Your task to perform on an android device: turn on the 24-hour format for clock Image 0: 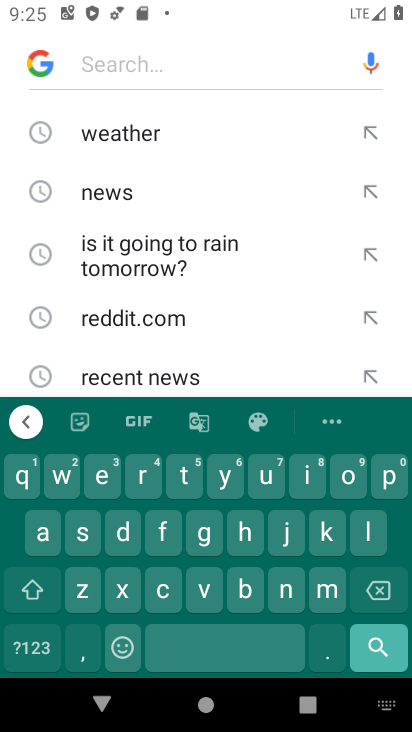
Step 0: press home button
Your task to perform on an android device: turn on the 24-hour format for clock Image 1: 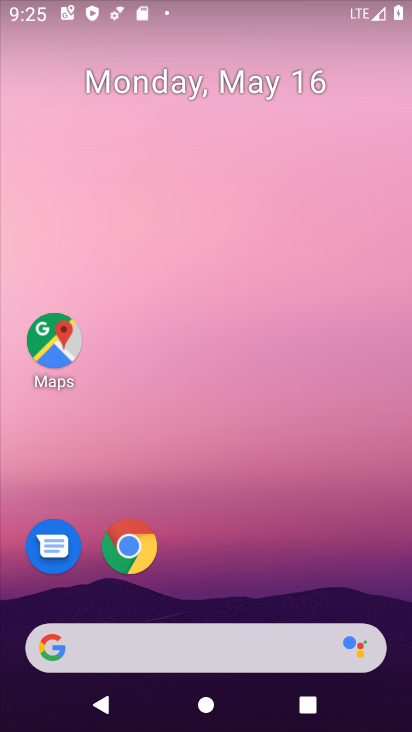
Step 1: drag from (288, 679) to (235, 136)
Your task to perform on an android device: turn on the 24-hour format for clock Image 2: 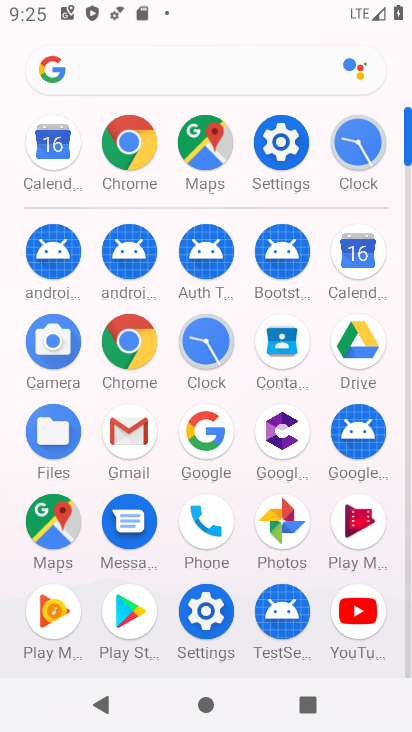
Step 2: click (198, 340)
Your task to perform on an android device: turn on the 24-hour format for clock Image 3: 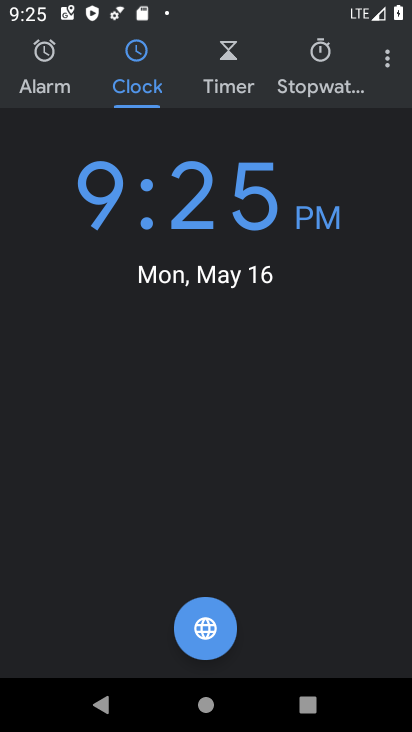
Step 3: click (375, 77)
Your task to perform on an android device: turn on the 24-hour format for clock Image 4: 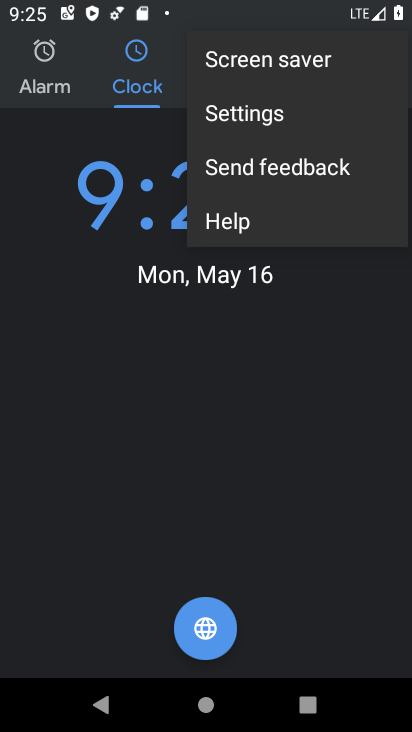
Step 4: click (284, 104)
Your task to perform on an android device: turn on the 24-hour format for clock Image 5: 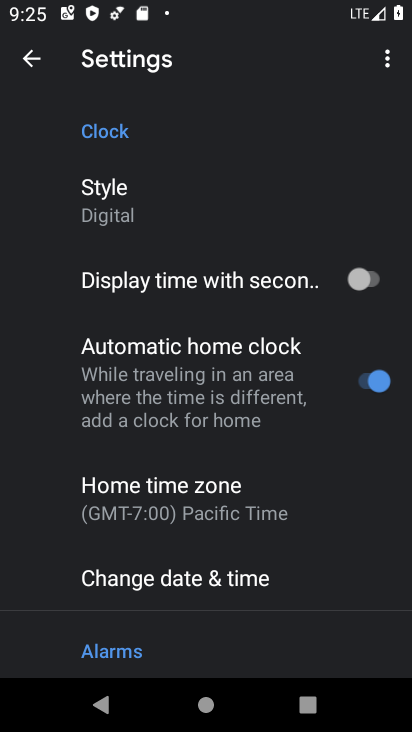
Step 5: click (138, 579)
Your task to perform on an android device: turn on the 24-hour format for clock Image 6: 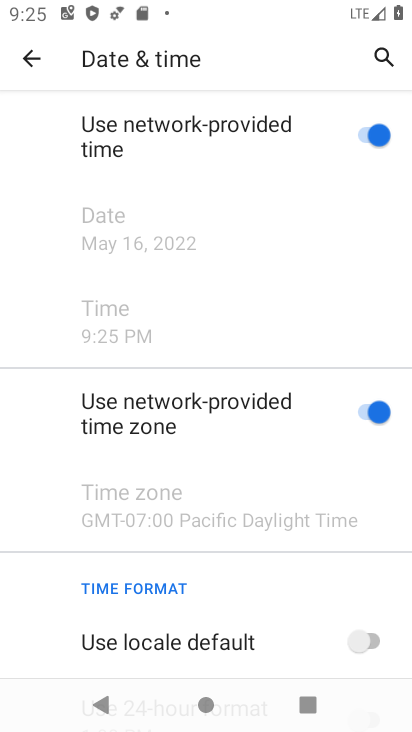
Step 6: drag from (225, 554) to (198, 210)
Your task to perform on an android device: turn on the 24-hour format for clock Image 7: 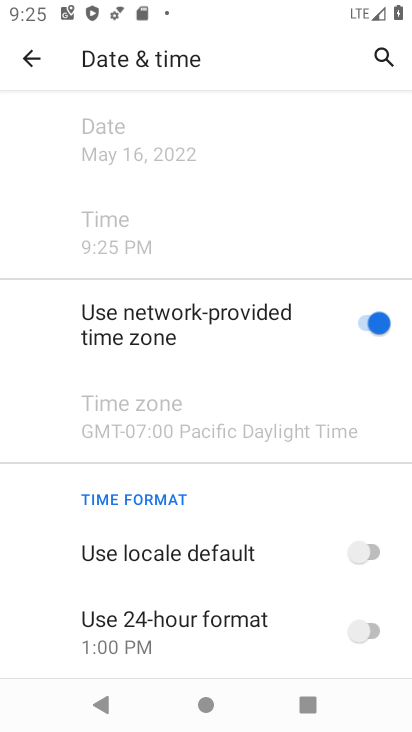
Step 7: click (364, 627)
Your task to perform on an android device: turn on the 24-hour format for clock Image 8: 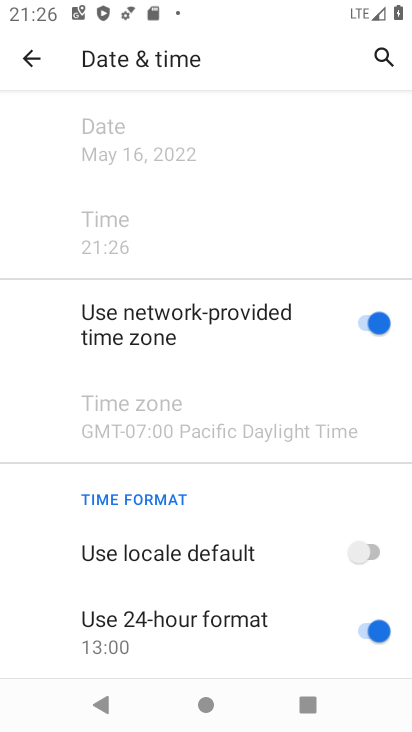
Step 8: task complete